Your task to perform on an android device: Toggle the flashlight Image 0: 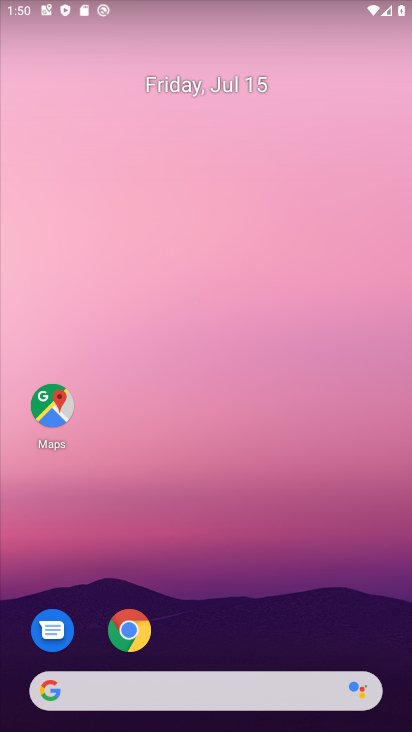
Step 0: drag from (277, 560) to (243, 103)
Your task to perform on an android device: Toggle the flashlight Image 1: 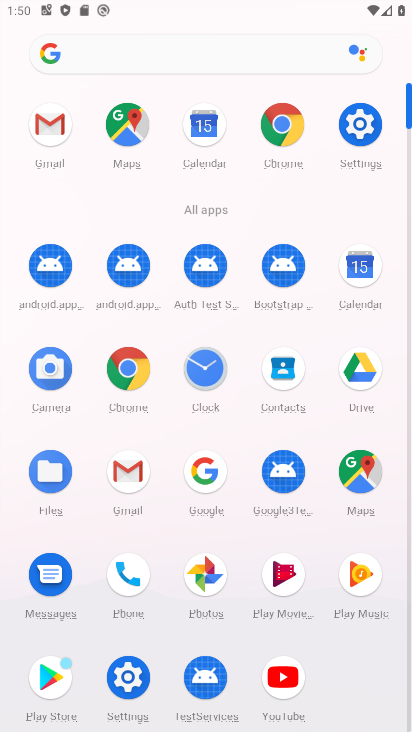
Step 1: click (363, 120)
Your task to perform on an android device: Toggle the flashlight Image 2: 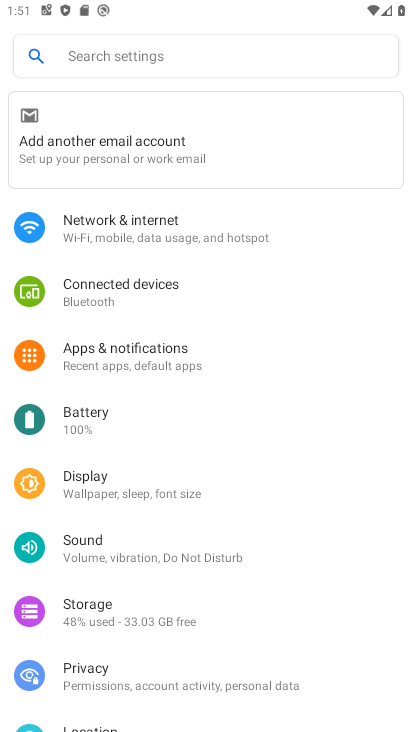
Step 2: click (102, 481)
Your task to perform on an android device: Toggle the flashlight Image 3: 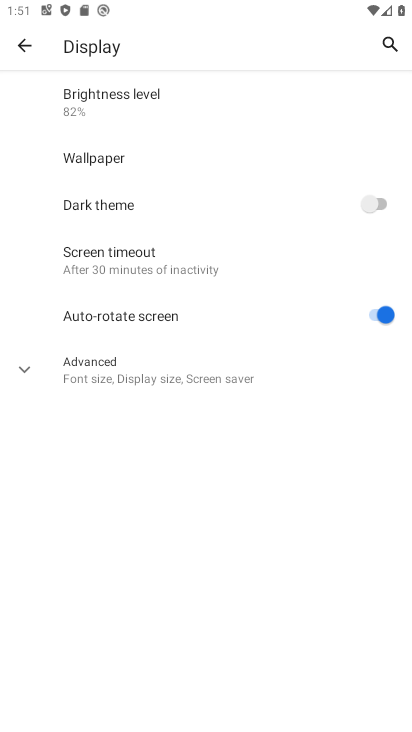
Step 3: task complete